Your task to perform on an android device: Open eBay Image 0: 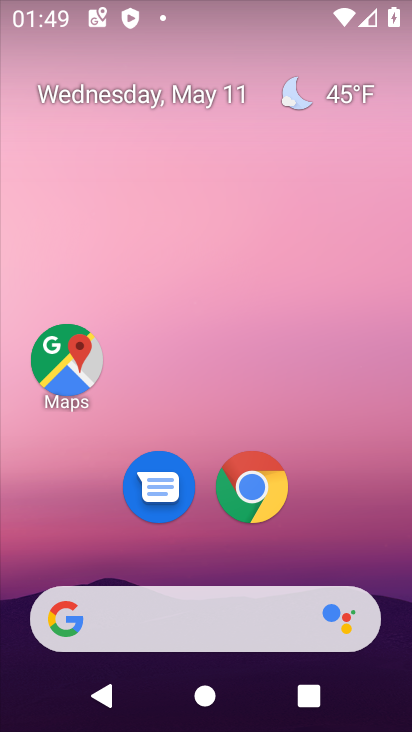
Step 0: click (258, 498)
Your task to perform on an android device: Open eBay Image 1: 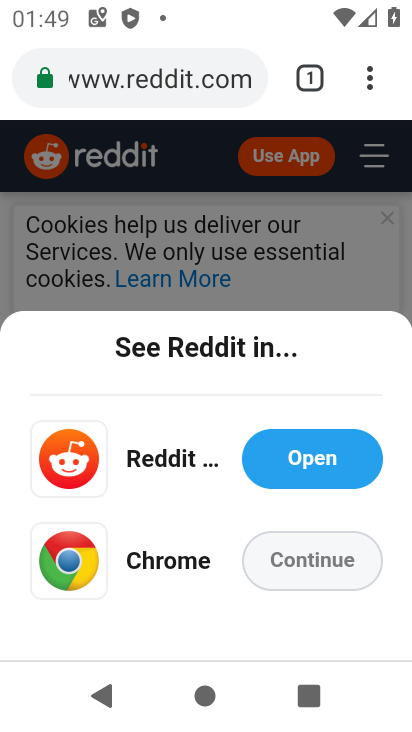
Step 1: drag from (385, 80) to (259, 224)
Your task to perform on an android device: Open eBay Image 2: 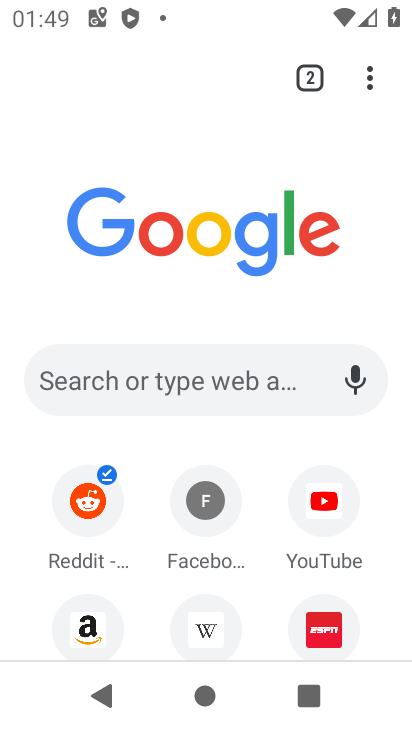
Step 2: drag from (241, 619) to (282, 463)
Your task to perform on an android device: Open eBay Image 3: 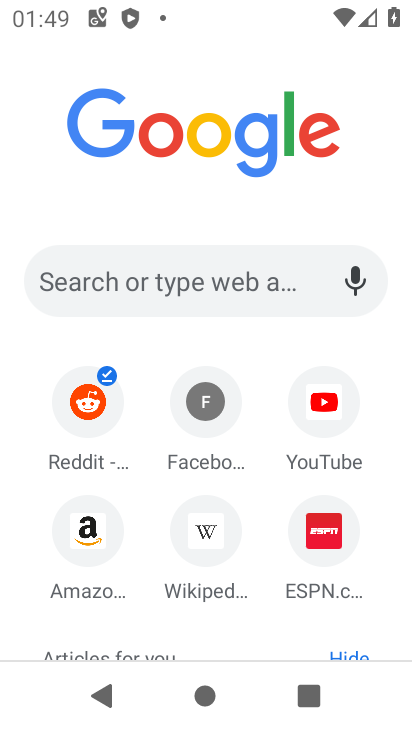
Step 3: click (171, 301)
Your task to perform on an android device: Open eBay Image 4: 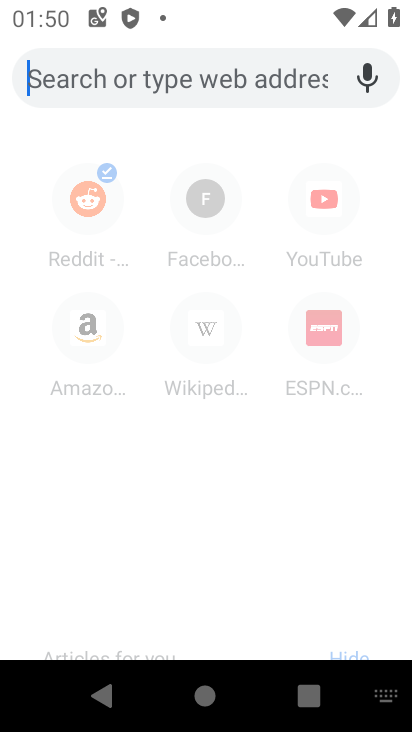
Step 4: type "eBay"
Your task to perform on an android device: Open eBay Image 5: 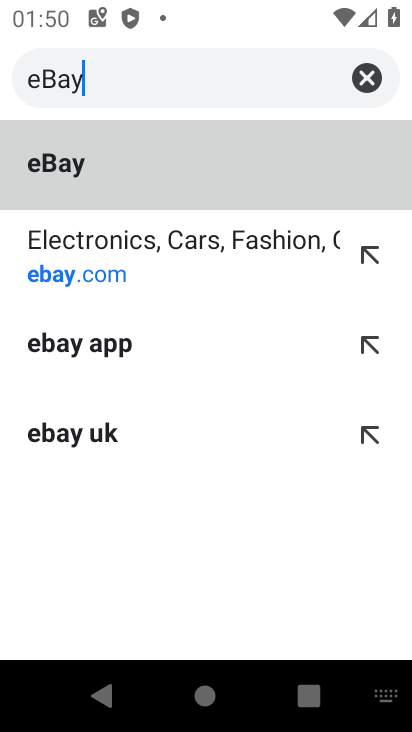
Step 5: click (184, 184)
Your task to perform on an android device: Open eBay Image 6: 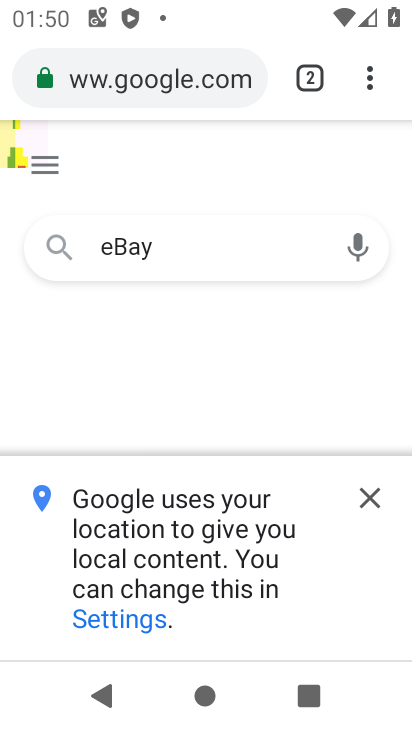
Step 6: click (365, 492)
Your task to perform on an android device: Open eBay Image 7: 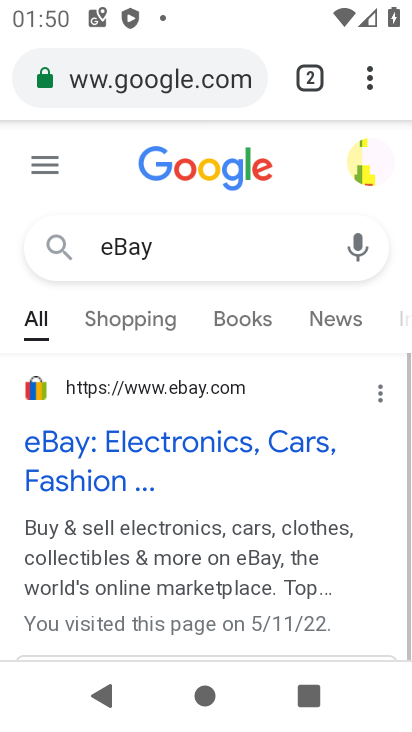
Step 7: click (185, 452)
Your task to perform on an android device: Open eBay Image 8: 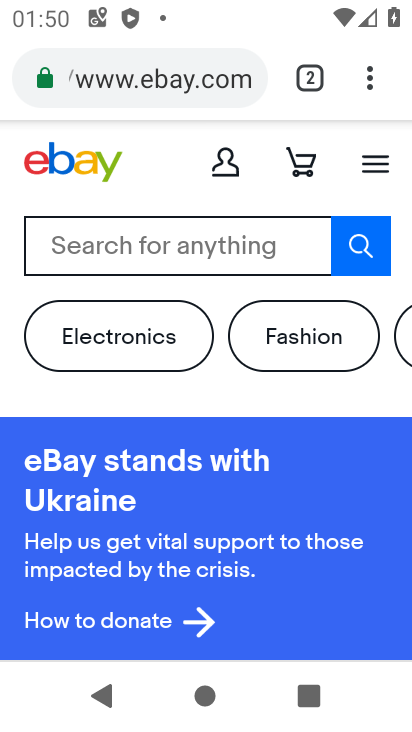
Step 8: task complete